Your task to perform on an android device: uninstall "ZOOM Cloud Meetings" Image 0: 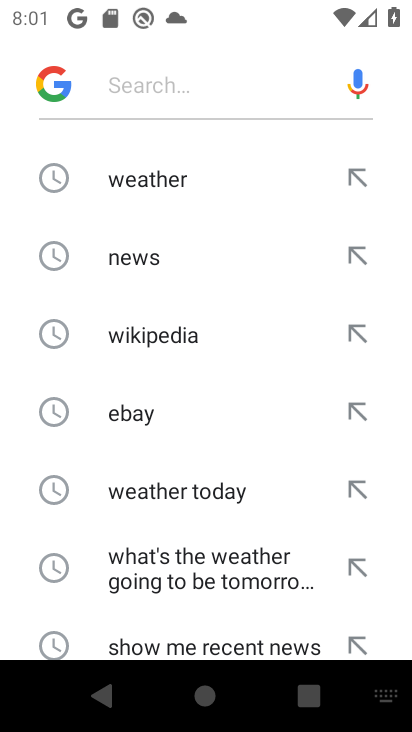
Step 0: press back button
Your task to perform on an android device: uninstall "ZOOM Cloud Meetings" Image 1: 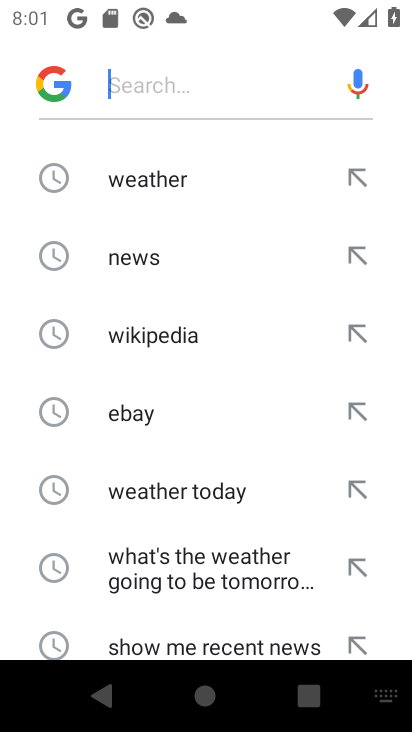
Step 1: press back button
Your task to perform on an android device: uninstall "ZOOM Cloud Meetings" Image 2: 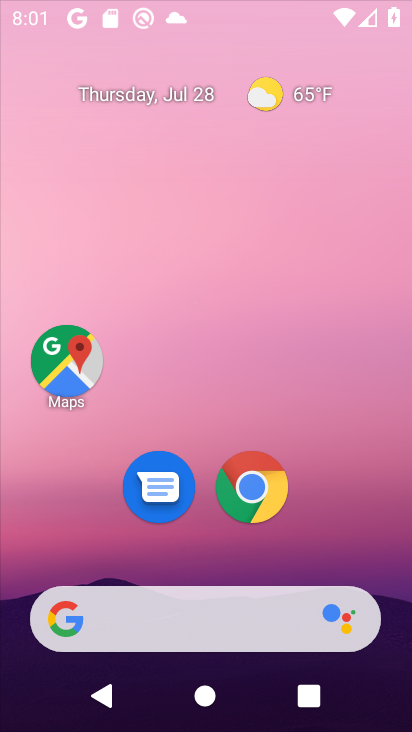
Step 2: press back button
Your task to perform on an android device: uninstall "ZOOM Cloud Meetings" Image 3: 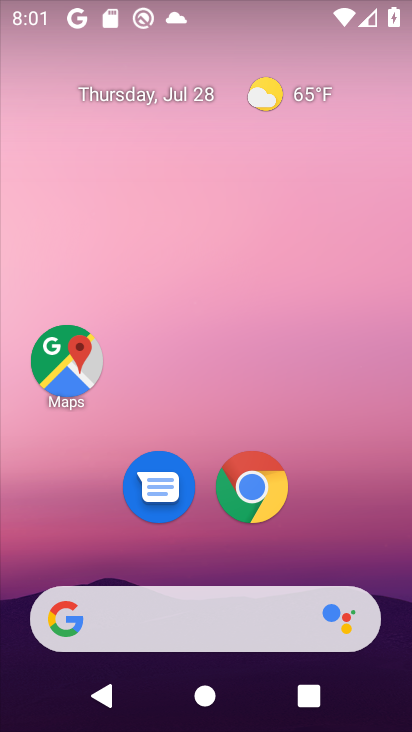
Step 3: drag from (119, 388) to (103, 228)
Your task to perform on an android device: uninstall "ZOOM Cloud Meetings" Image 4: 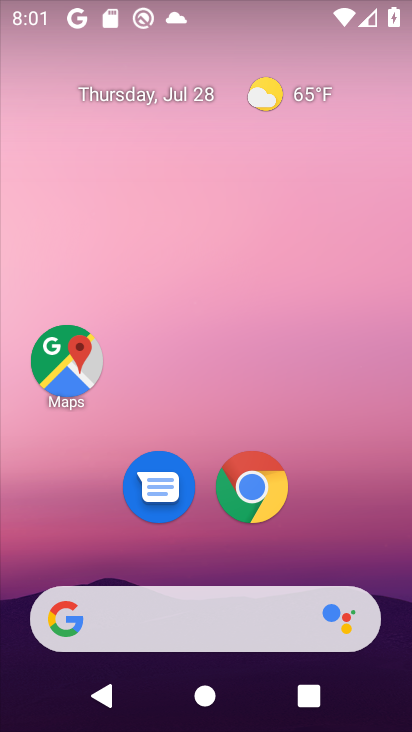
Step 4: drag from (223, 575) to (194, 169)
Your task to perform on an android device: uninstall "ZOOM Cloud Meetings" Image 5: 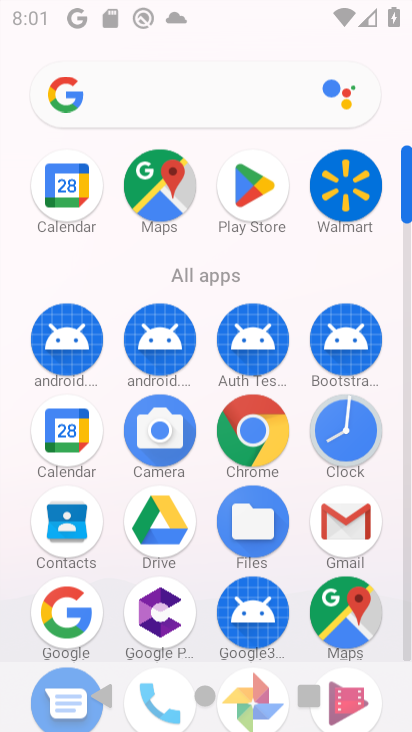
Step 5: click (186, 7)
Your task to perform on an android device: uninstall "ZOOM Cloud Meetings" Image 6: 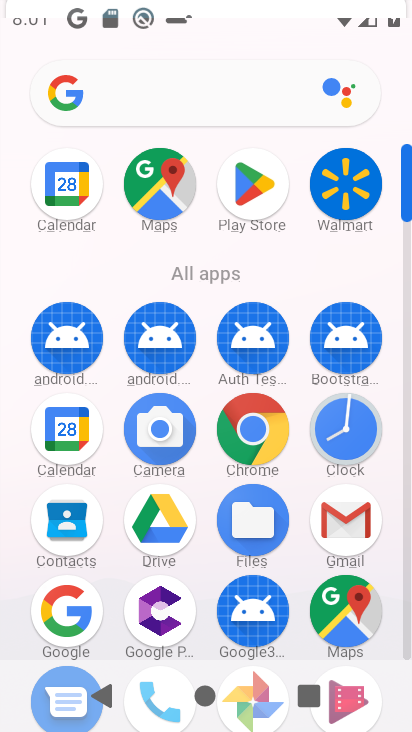
Step 6: drag from (242, 390) to (156, 36)
Your task to perform on an android device: uninstall "ZOOM Cloud Meetings" Image 7: 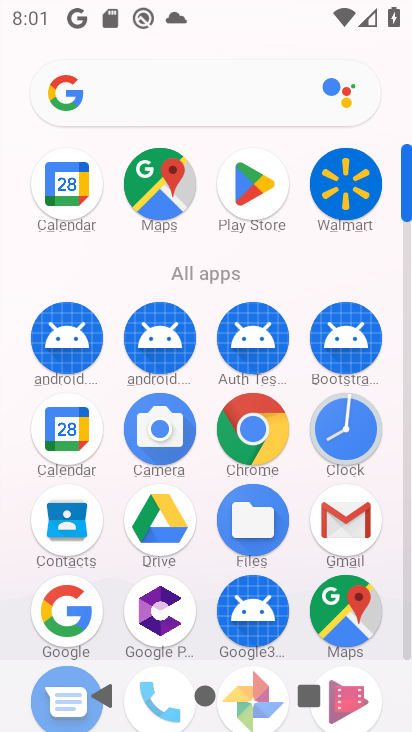
Step 7: click (259, 190)
Your task to perform on an android device: uninstall "ZOOM Cloud Meetings" Image 8: 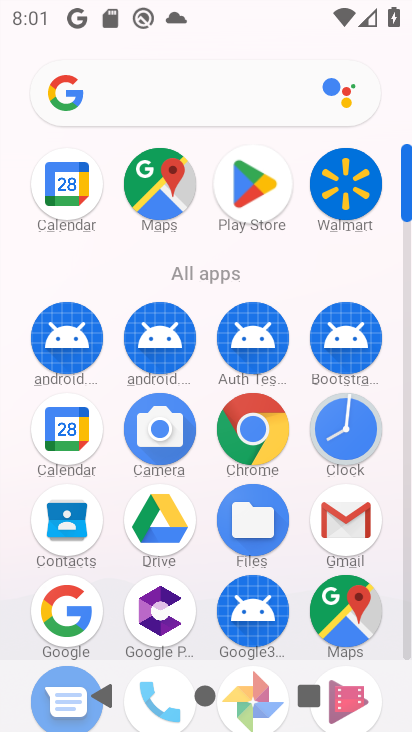
Step 8: click (252, 182)
Your task to perform on an android device: uninstall "ZOOM Cloud Meetings" Image 9: 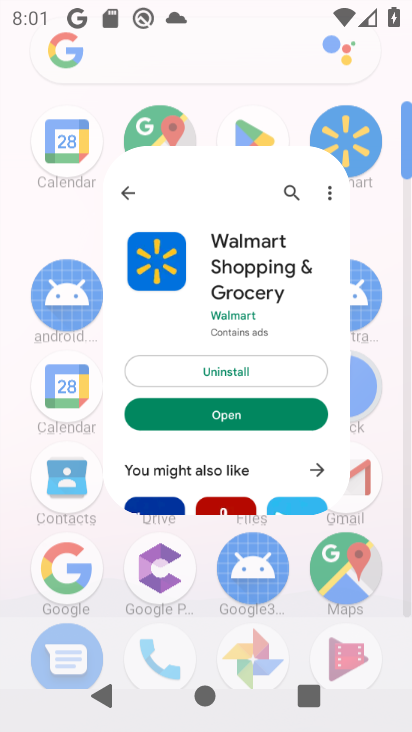
Step 9: click (248, 181)
Your task to perform on an android device: uninstall "ZOOM Cloud Meetings" Image 10: 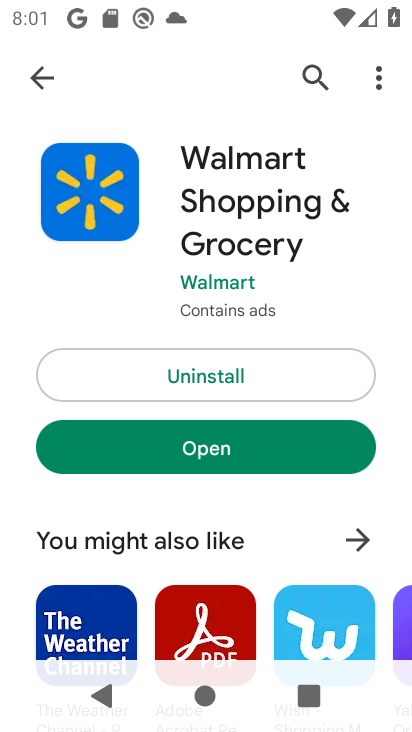
Step 10: click (248, 181)
Your task to perform on an android device: uninstall "ZOOM Cloud Meetings" Image 11: 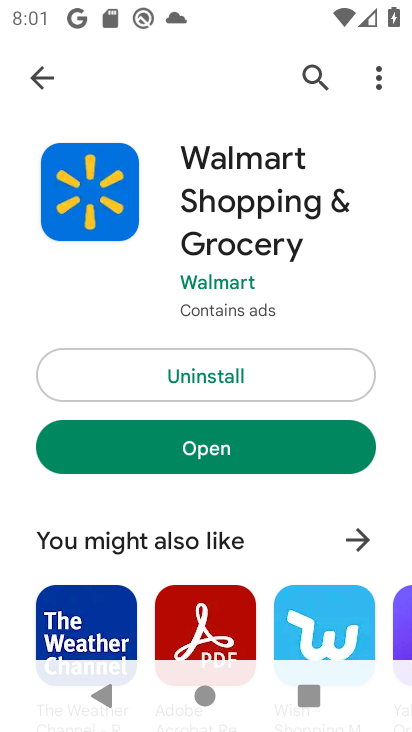
Step 11: click (40, 76)
Your task to perform on an android device: uninstall "ZOOM Cloud Meetings" Image 12: 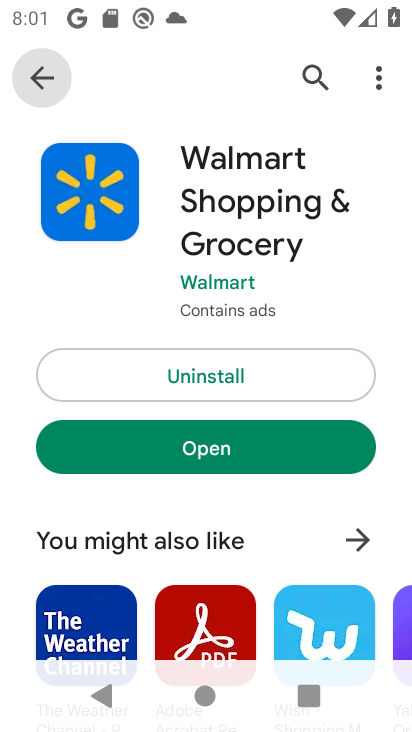
Step 12: click (39, 76)
Your task to perform on an android device: uninstall "ZOOM Cloud Meetings" Image 13: 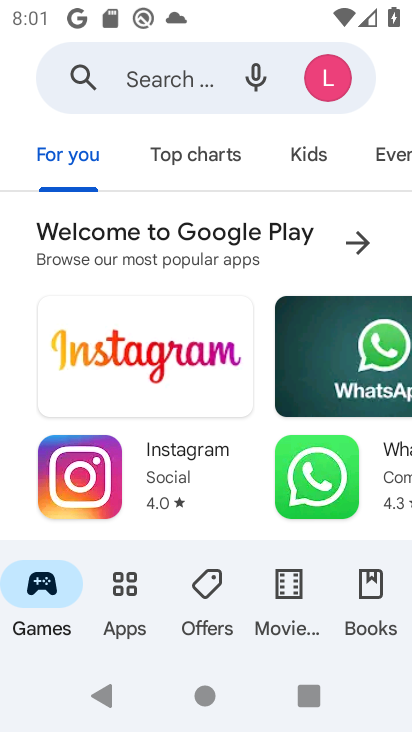
Step 13: click (139, 85)
Your task to perform on an android device: uninstall "ZOOM Cloud Meetings" Image 14: 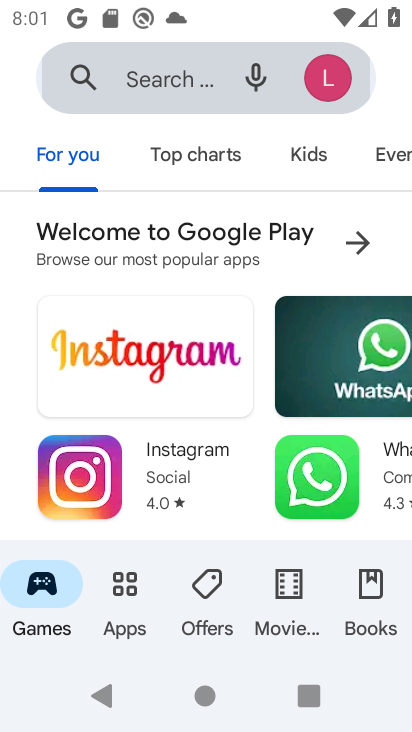
Step 14: click (152, 80)
Your task to perform on an android device: uninstall "ZOOM Cloud Meetings" Image 15: 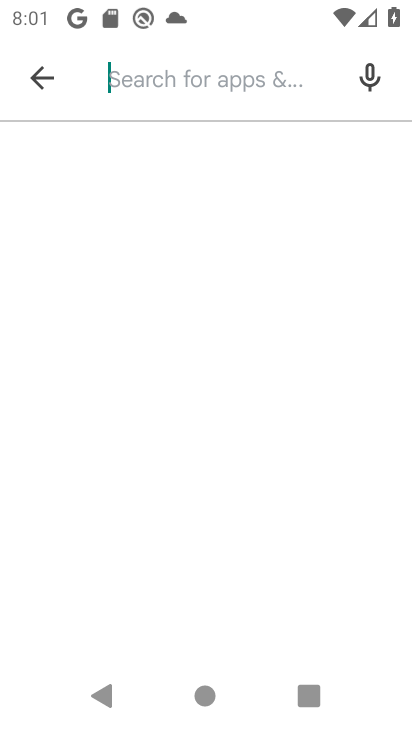
Step 15: click (153, 80)
Your task to perform on an android device: uninstall "ZOOM Cloud Meetings" Image 16: 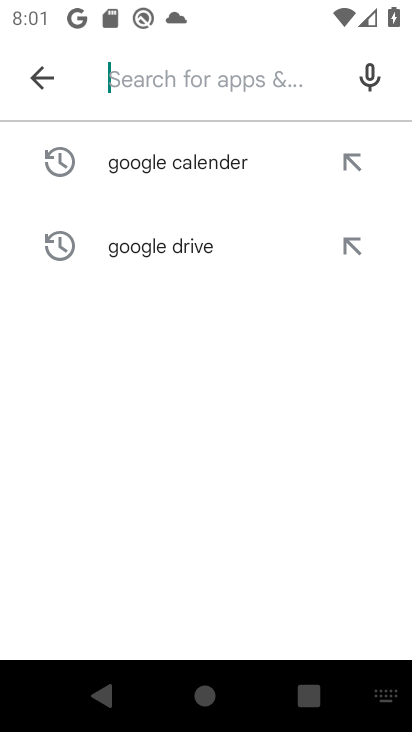
Step 16: type "ZOOM Cloud Meetings"
Your task to perform on an android device: uninstall "ZOOM Cloud Meetings" Image 17: 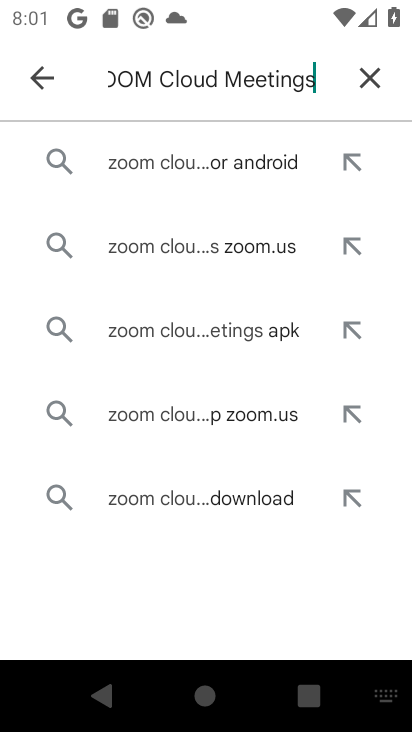
Step 17: click (344, 157)
Your task to perform on an android device: uninstall "ZOOM Cloud Meetings" Image 18: 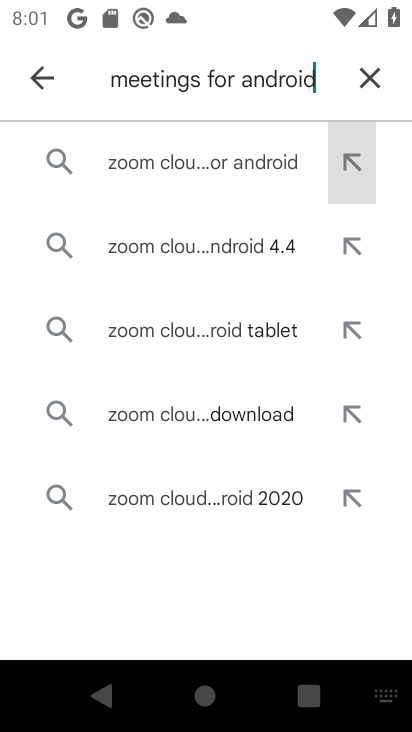
Step 18: click (344, 158)
Your task to perform on an android device: uninstall "ZOOM Cloud Meetings" Image 19: 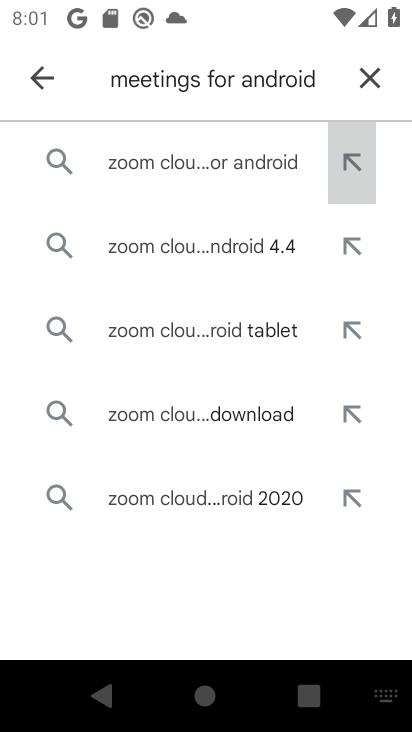
Step 19: click (345, 159)
Your task to perform on an android device: uninstall "ZOOM Cloud Meetings" Image 20: 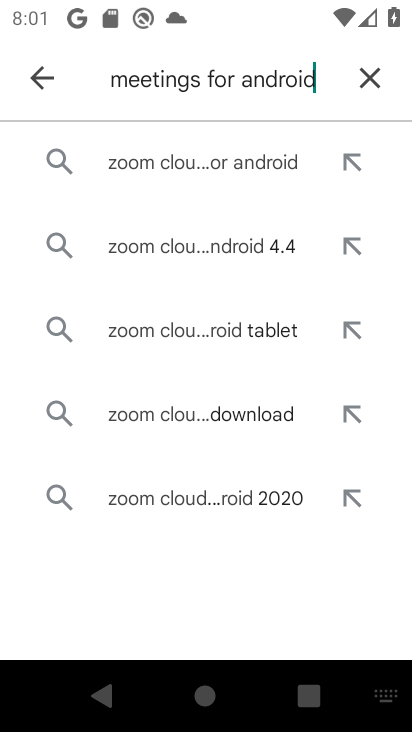
Step 20: click (319, 97)
Your task to perform on an android device: uninstall "ZOOM Cloud Meetings" Image 21: 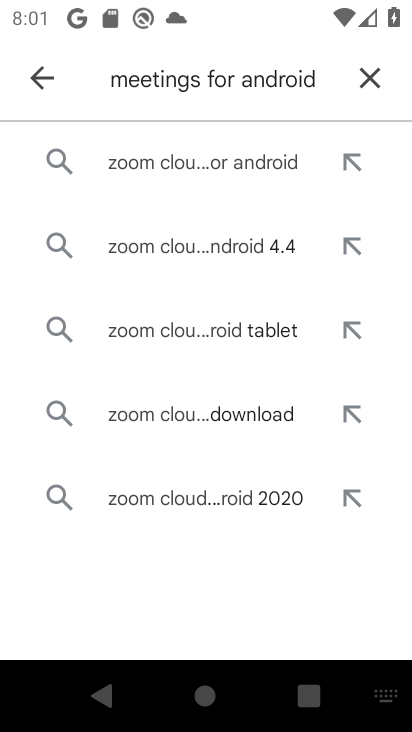
Step 21: click (318, 94)
Your task to perform on an android device: uninstall "ZOOM Cloud Meetings" Image 22: 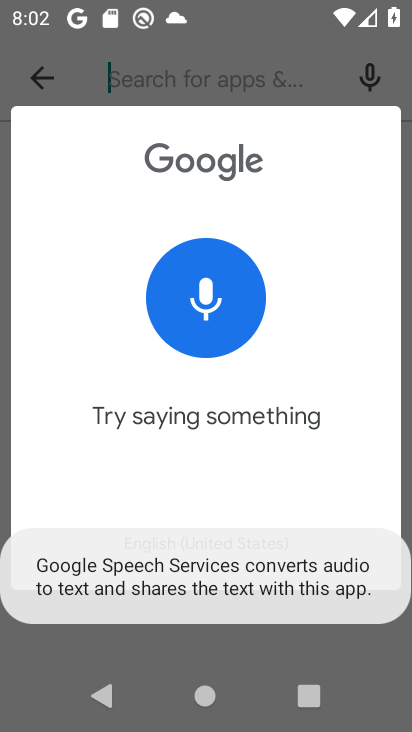
Step 22: click (197, 63)
Your task to perform on an android device: uninstall "ZOOM Cloud Meetings" Image 23: 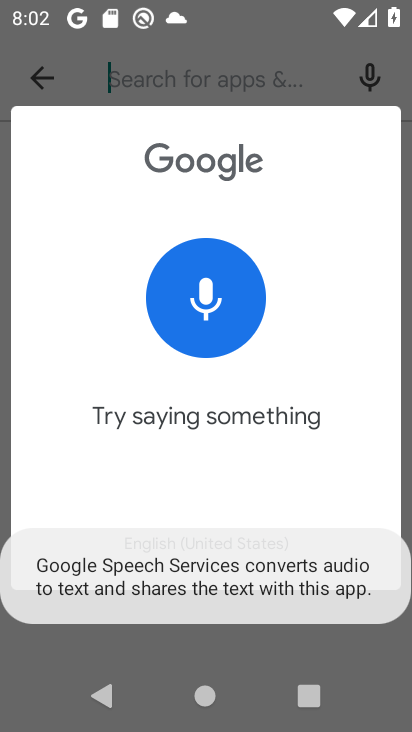
Step 23: click (199, 64)
Your task to perform on an android device: uninstall "ZOOM Cloud Meetings" Image 24: 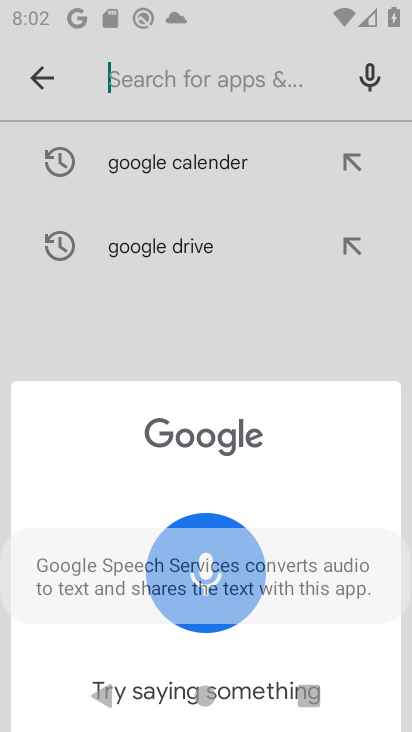
Step 24: click (202, 65)
Your task to perform on an android device: uninstall "ZOOM Cloud Meetings" Image 25: 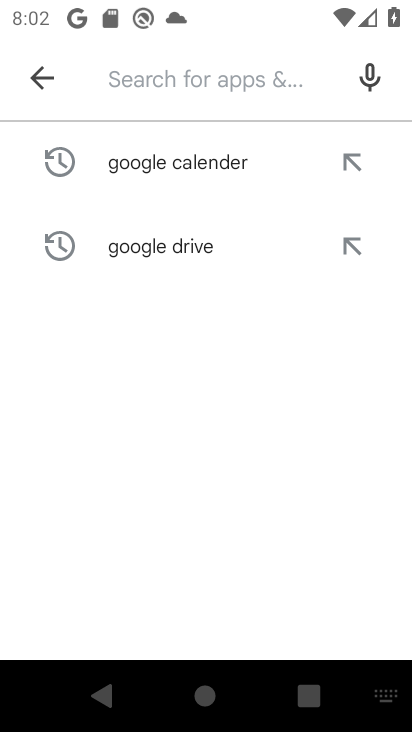
Step 25: type "Zoom Cloud Meetings"
Your task to perform on an android device: uninstall "ZOOM Cloud Meetings" Image 26: 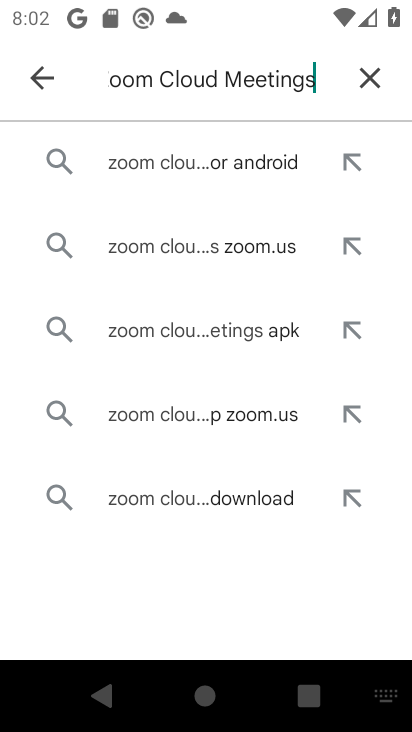
Step 26: drag from (275, 520) to (248, 193)
Your task to perform on an android device: uninstall "ZOOM Cloud Meetings" Image 27: 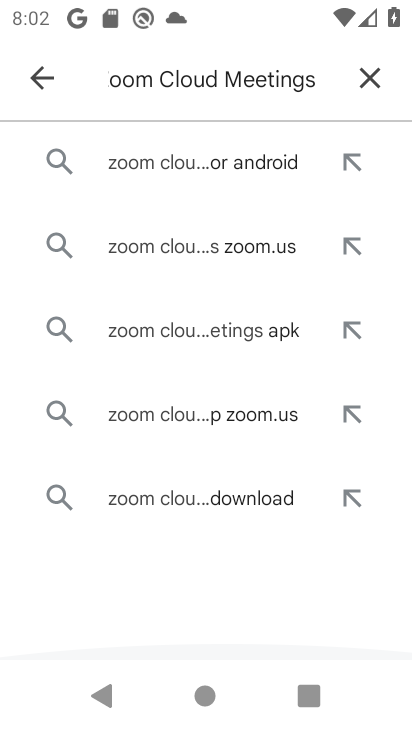
Step 27: drag from (267, 418) to (298, 54)
Your task to perform on an android device: uninstall "ZOOM Cloud Meetings" Image 28: 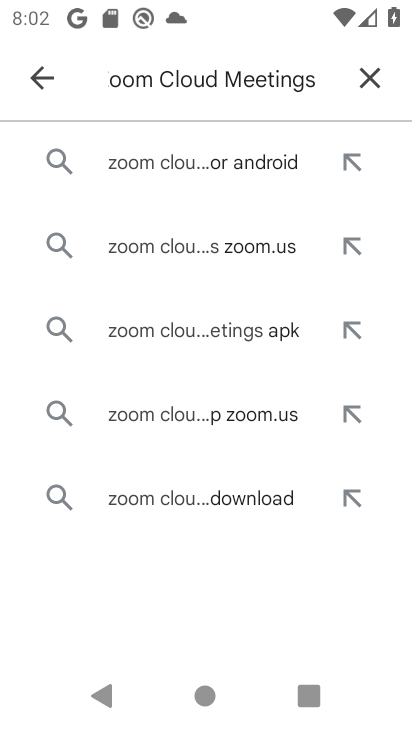
Step 28: click (280, 173)
Your task to perform on an android device: uninstall "ZOOM Cloud Meetings" Image 29: 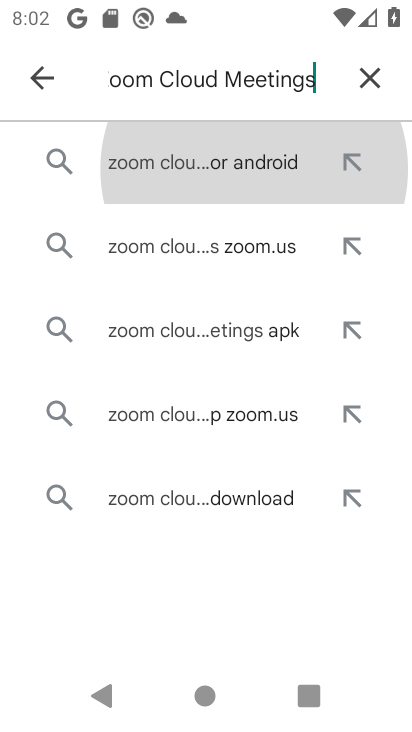
Step 29: click (280, 168)
Your task to perform on an android device: uninstall "ZOOM Cloud Meetings" Image 30: 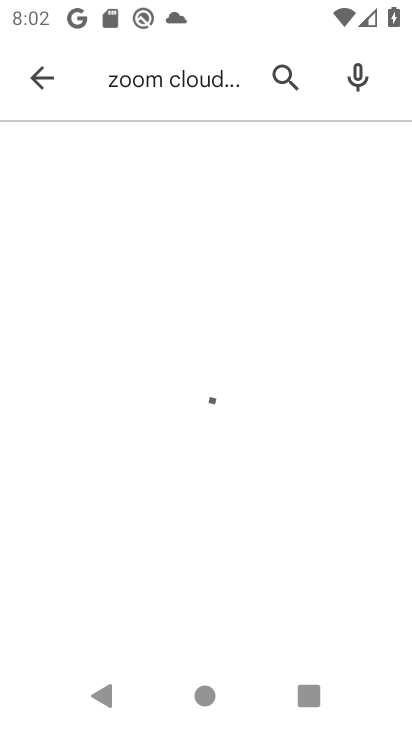
Step 30: click (275, 163)
Your task to perform on an android device: uninstall "ZOOM Cloud Meetings" Image 31: 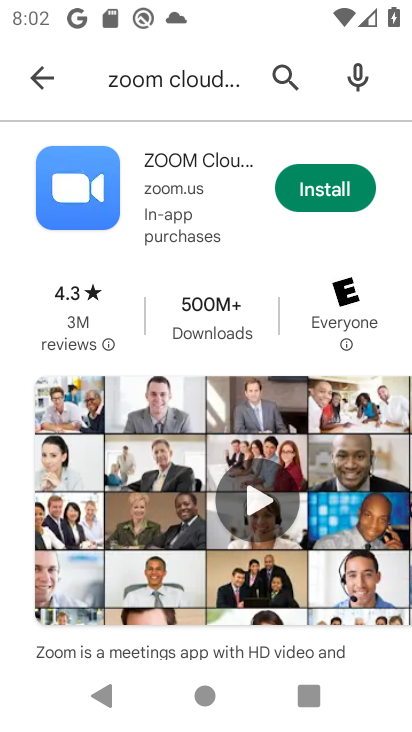
Step 31: click (334, 186)
Your task to perform on an android device: uninstall "ZOOM Cloud Meetings" Image 32: 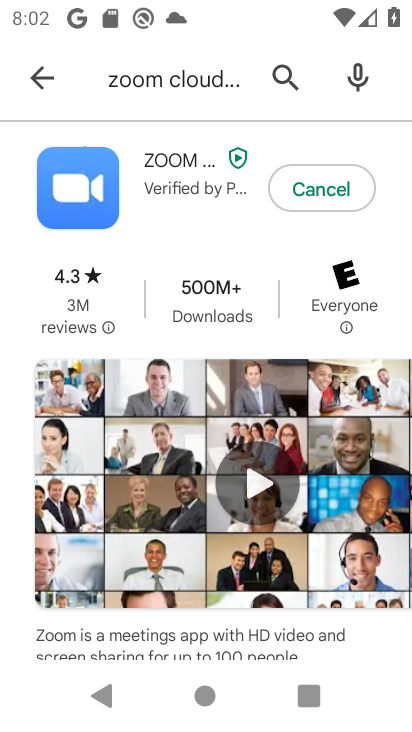
Step 32: click (335, 186)
Your task to perform on an android device: uninstall "ZOOM Cloud Meetings" Image 33: 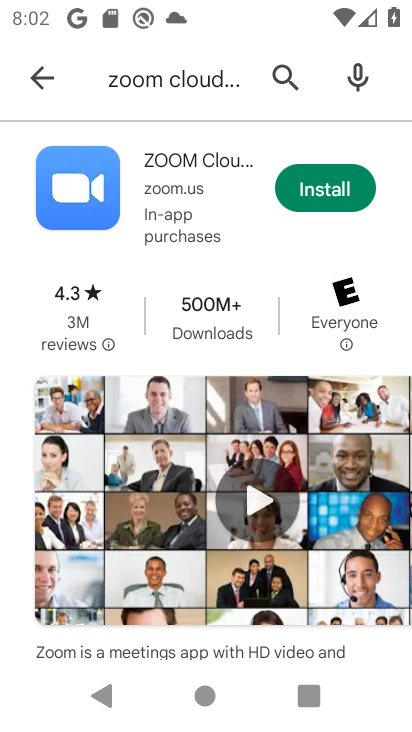
Step 33: click (319, 186)
Your task to perform on an android device: uninstall "ZOOM Cloud Meetings" Image 34: 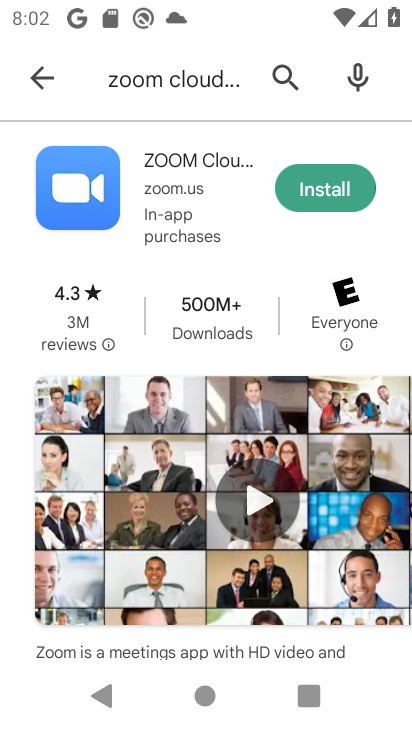
Step 34: click (320, 187)
Your task to perform on an android device: uninstall "ZOOM Cloud Meetings" Image 35: 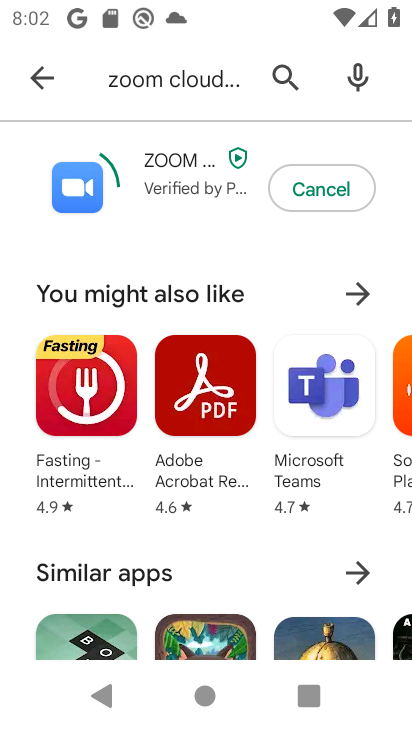
Step 35: click (321, 187)
Your task to perform on an android device: uninstall "ZOOM Cloud Meetings" Image 36: 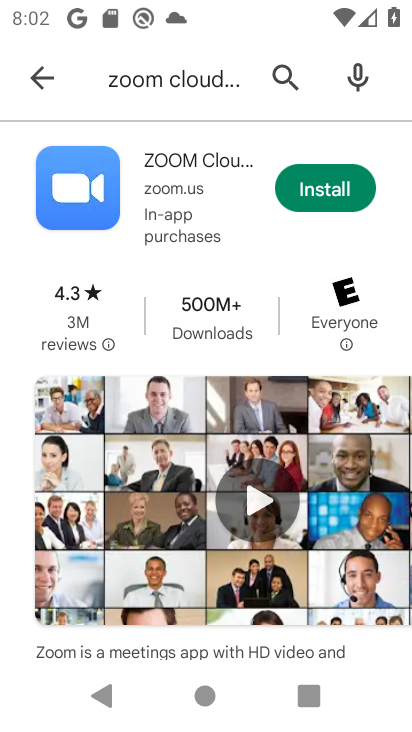
Step 36: click (329, 188)
Your task to perform on an android device: uninstall "ZOOM Cloud Meetings" Image 37: 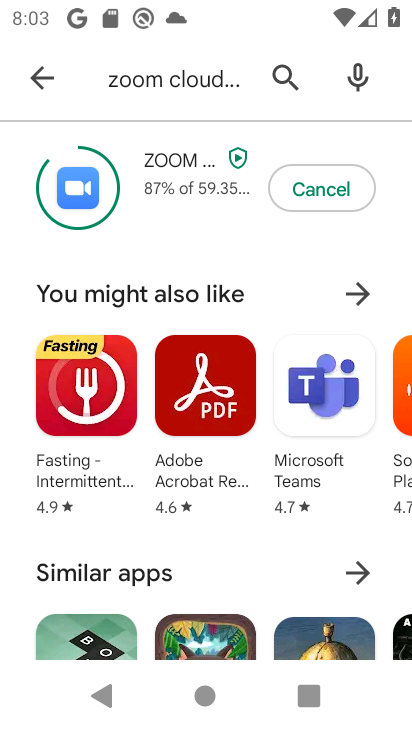
Step 37: task complete